Your task to perform on an android device: refresh tabs in the chrome app Image 0: 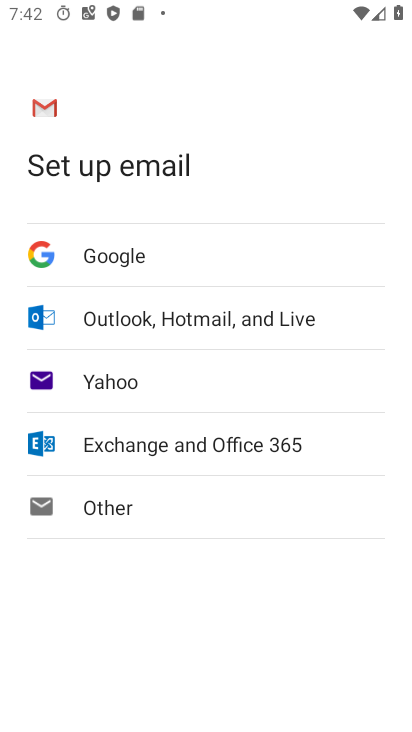
Step 0: press back button
Your task to perform on an android device: refresh tabs in the chrome app Image 1: 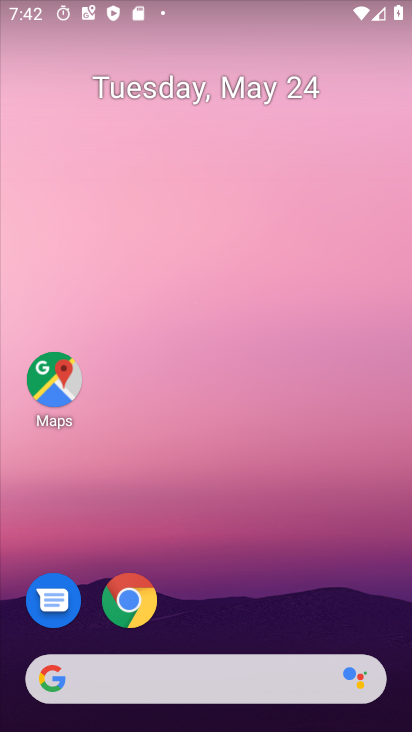
Step 1: click (118, 593)
Your task to perform on an android device: refresh tabs in the chrome app Image 2: 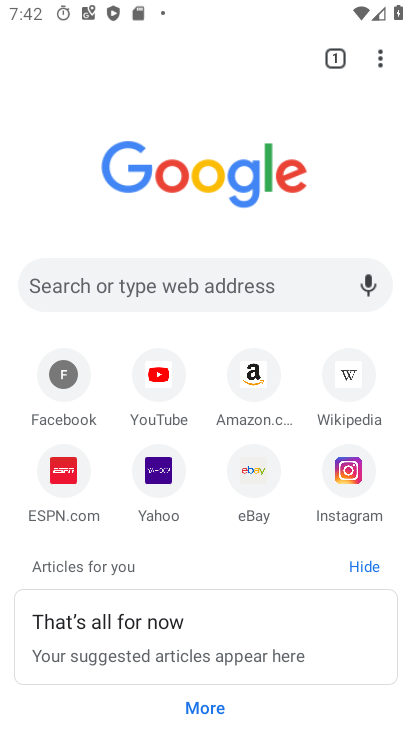
Step 2: task complete